Your task to perform on an android device: Open maps Image 0: 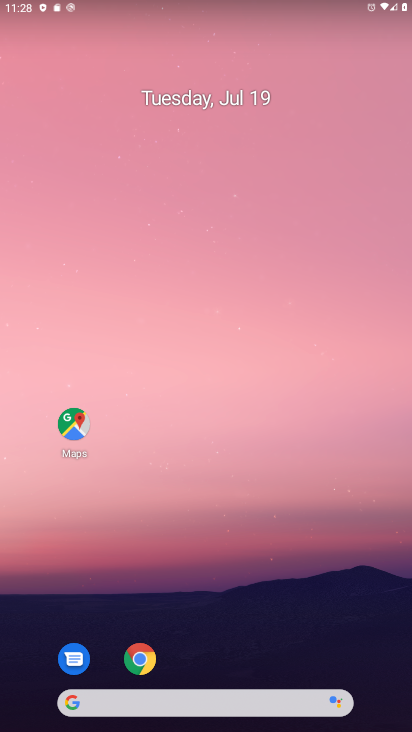
Step 0: press home button
Your task to perform on an android device: Open maps Image 1: 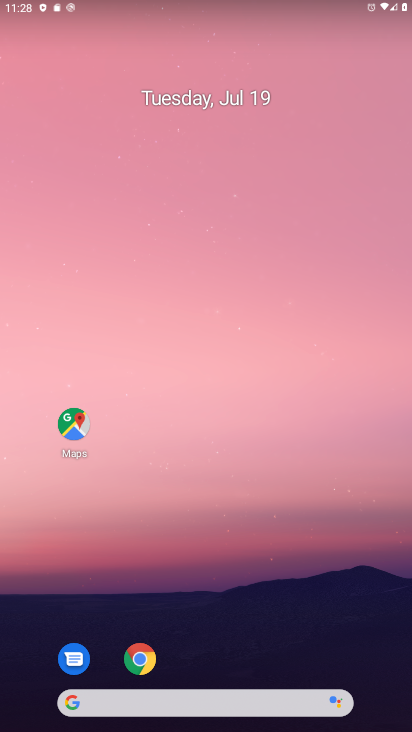
Step 1: click (73, 420)
Your task to perform on an android device: Open maps Image 2: 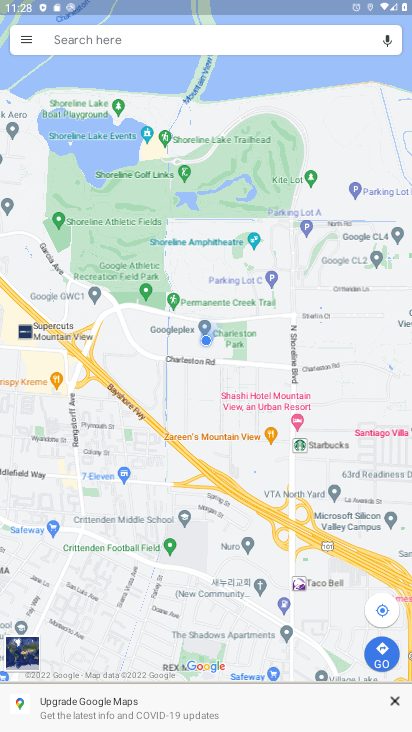
Step 2: task complete